Your task to perform on an android device: Search for flights from San Francisco to Tokyo Image 0: 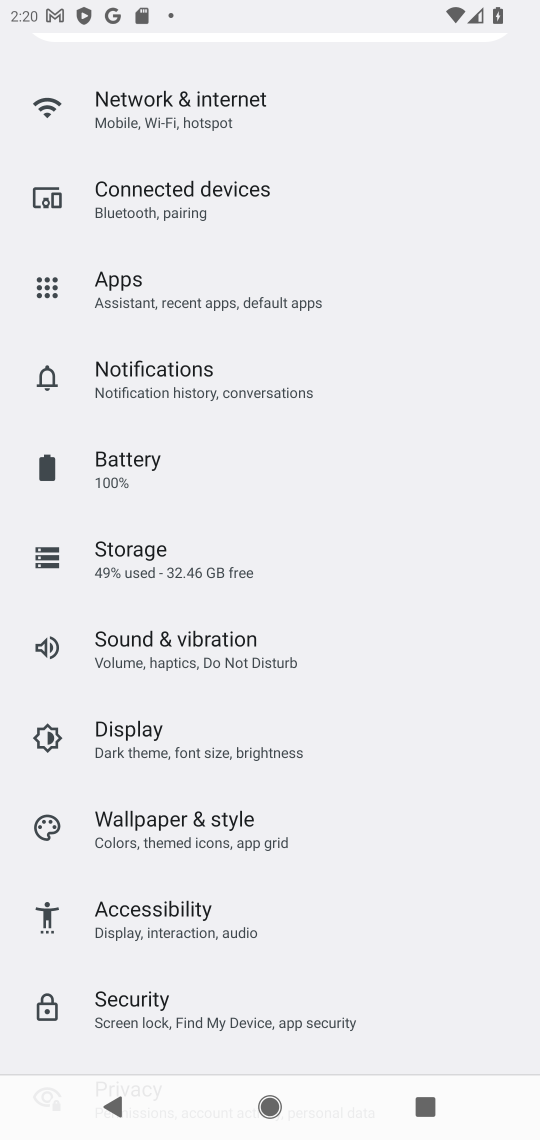
Step 0: press home button
Your task to perform on an android device: Search for flights from San Francisco to Tokyo Image 1: 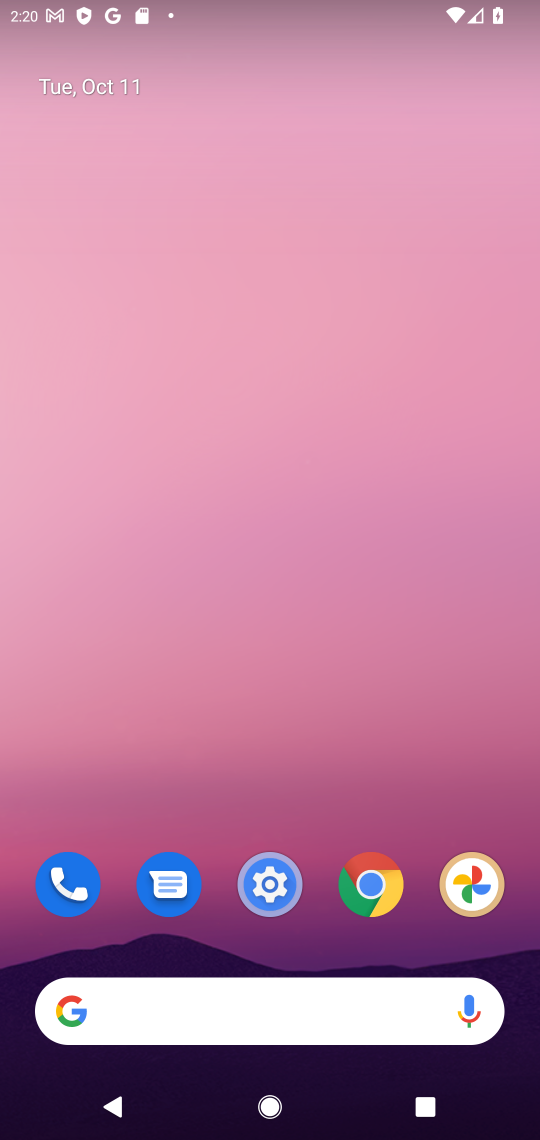
Step 1: click (372, 888)
Your task to perform on an android device: Search for flights from San Francisco to Tokyo Image 2: 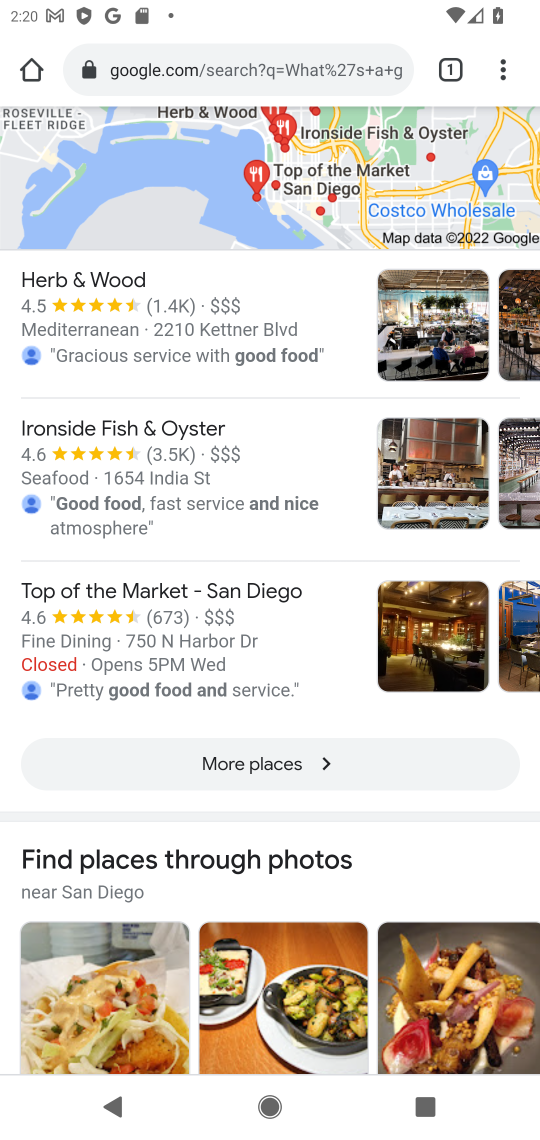
Step 2: click (256, 76)
Your task to perform on an android device: Search for flights from San Francisco to Tokyo Image 3: 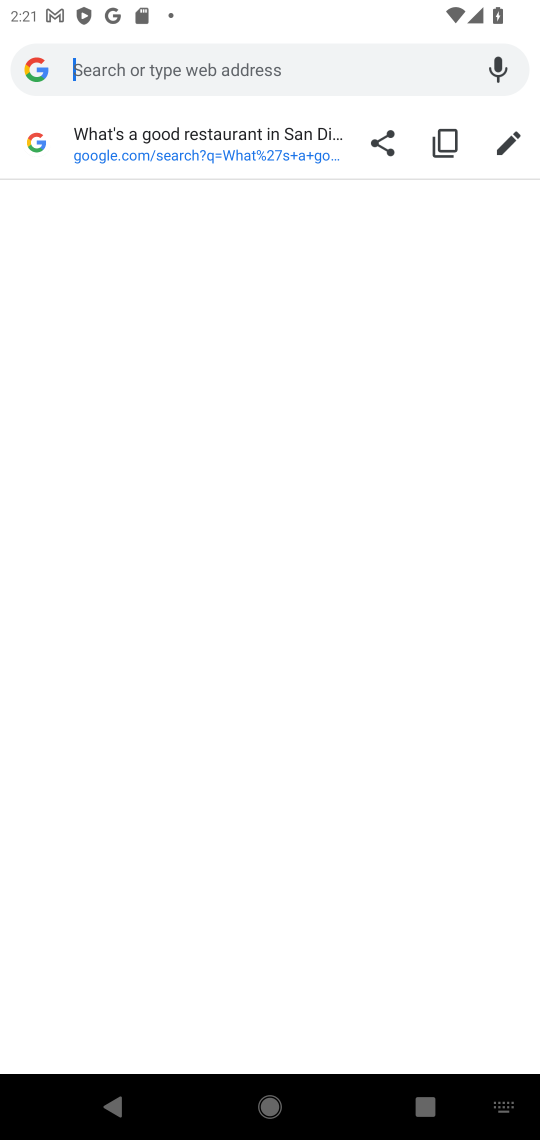
Step 3: type "flights from San Francisco to Tokyo"
Your task to perform on an android device: Search for flights from San Francisco to Tokyo Image 4: 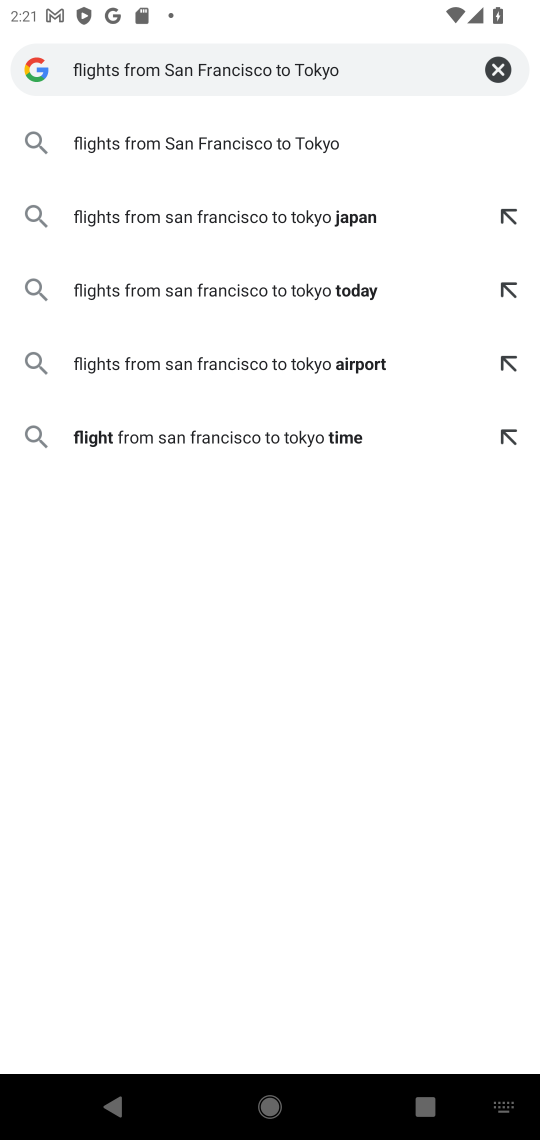
Step 4: click (199, 142)
Your task to perform on an android device: Search for flights from San Francisco to Tokyo Image 5: 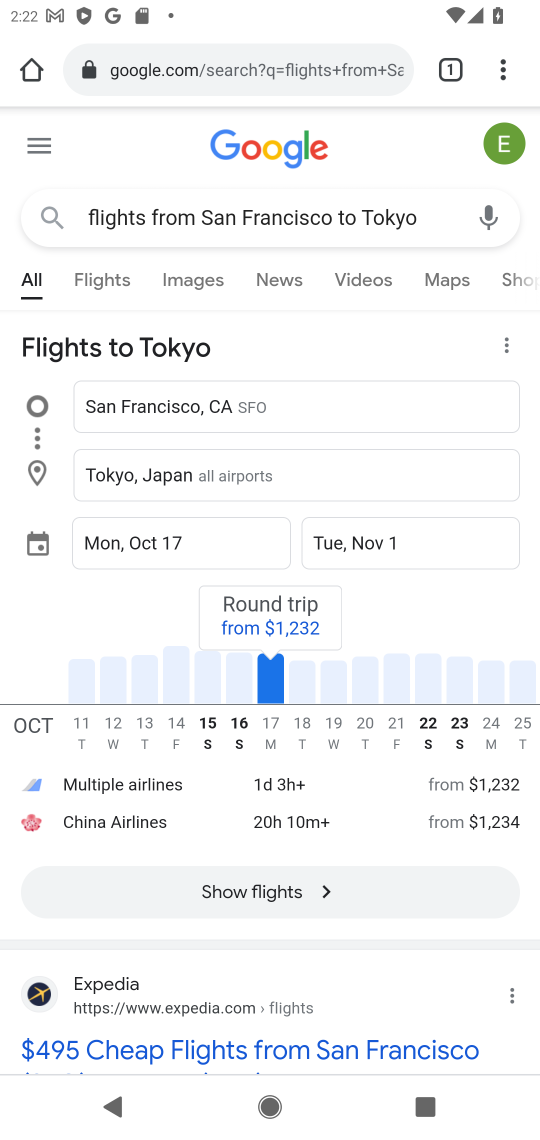
Step 5: task complete